Your task to perform on an android device: Search for Italian restaurants on Maps Image 0: 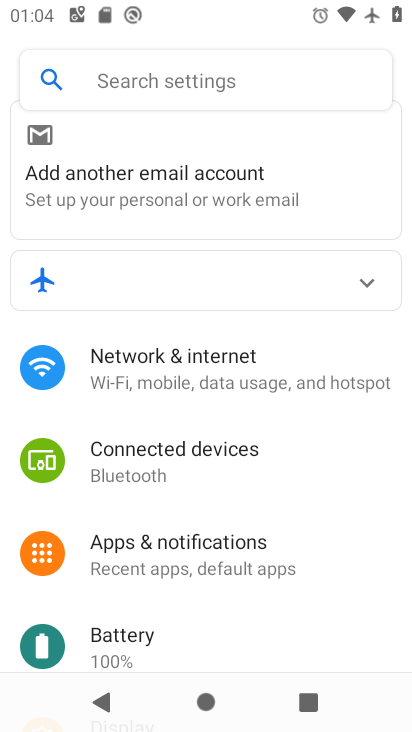
Step 0: press home button
Your task to perform on an android device: Search for Italian restaurants on Maps Image 1: 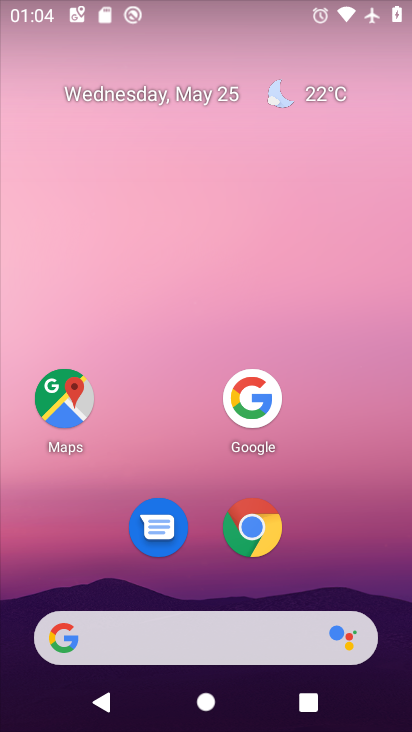
Step 1: click (61, 410)
Your task to perform on an android device: Search for Italian restaurants on Maps Image 2: 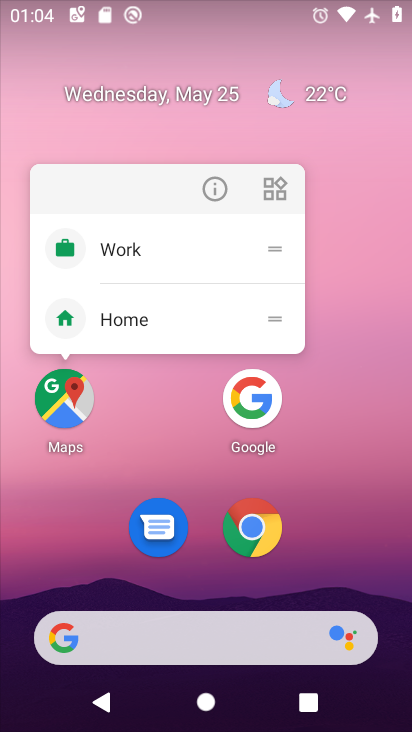
Step 2: click (63, 408)
Your task to perform on an android device: Search for Italian restaurants on Maps Image 3: 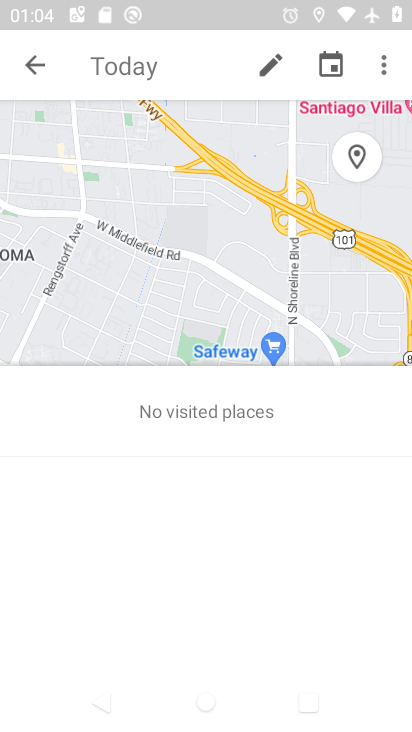
Step 3: click (33, 64)
Your task to perform on an android device: Search for Italian restaurants on Maps Image 4: 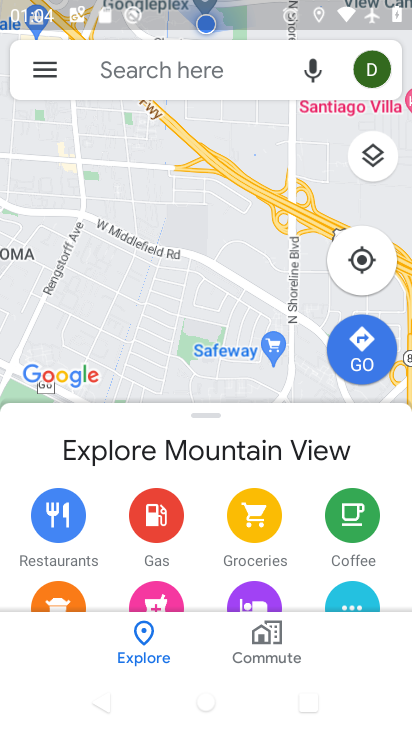
Step 4: click (182, 67)
Your task to perform on an android device: Search for Italian restaurants on Maps Image 5: 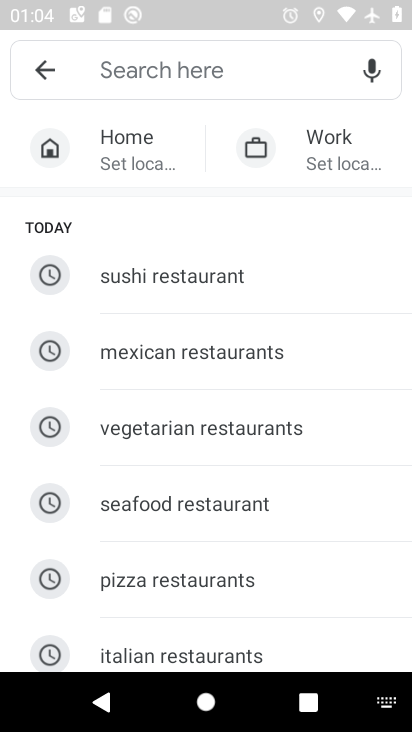
Step 5: click (170, 657)
Your task to perform on an android device: Search for Italian restaurants on Maps Image 6: 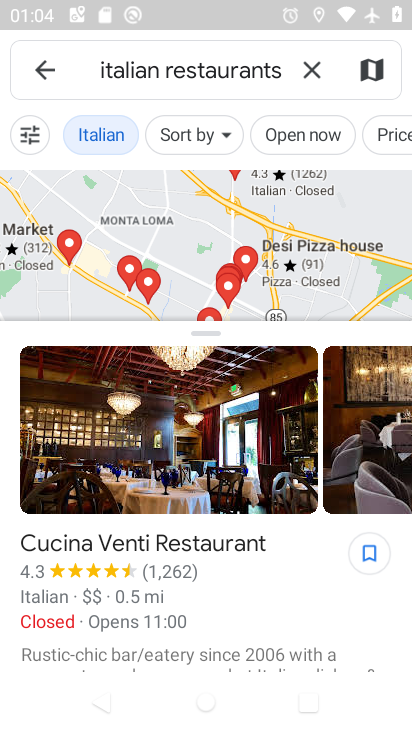
Step 6: task complete